Your task to perform on an android device: Open the stopwatch Image 0: 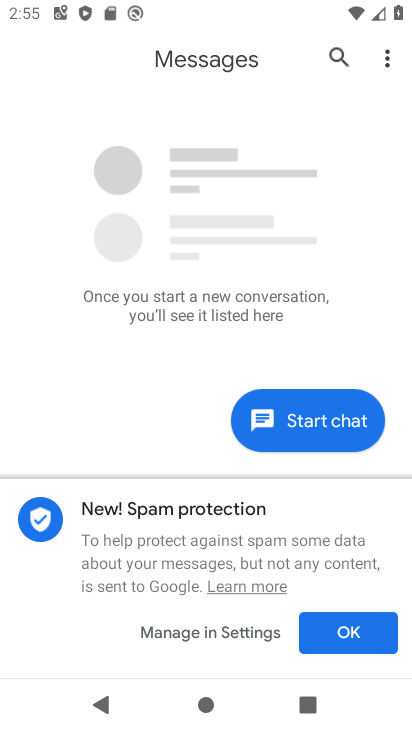
Step 0: press back button
Your task to perform on an android device: Open the stopwatch Image 1: 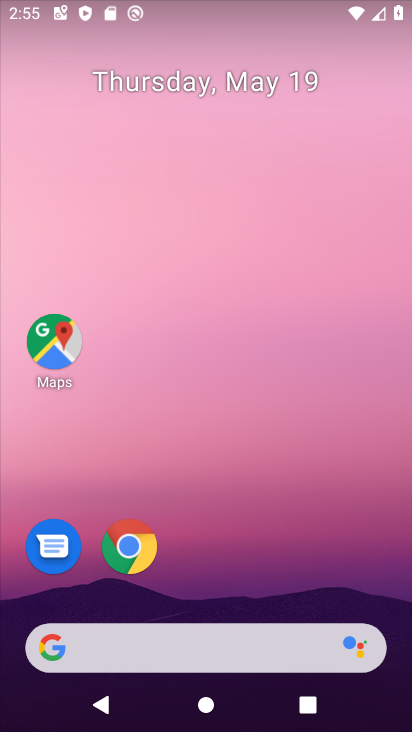
Step 1: drag from (228, 563) to (185, 127)
Your task to perform on an android device: Open the stopwatch Image 2: 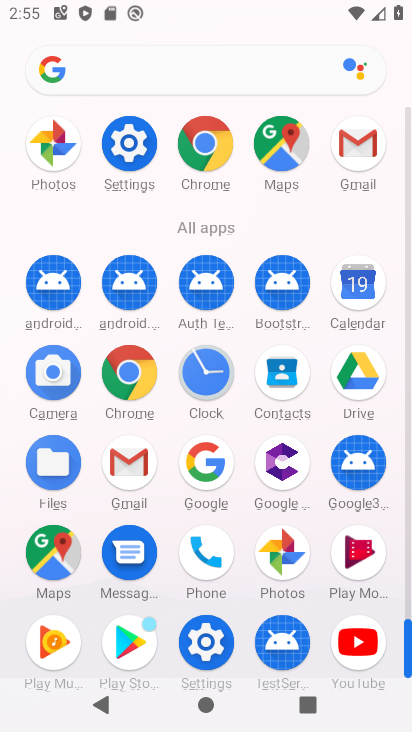
Step 2: click (205, 373)
Your task to perform on an android device: Open the stopwatch Image 3: 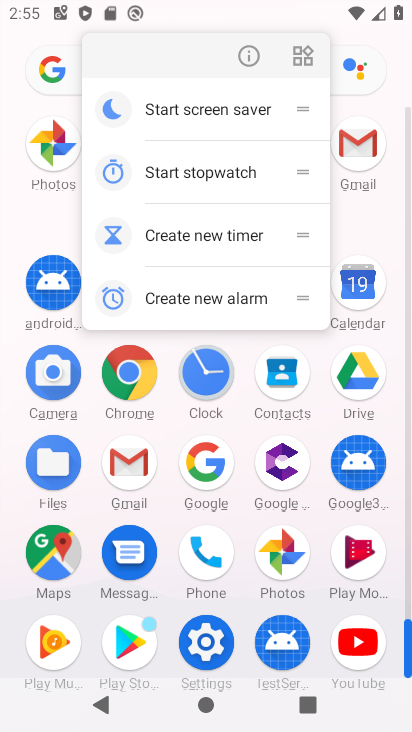
Step 3: click (205, 373)
Your task to perform on an android device: Open the stopwatch Image 4: 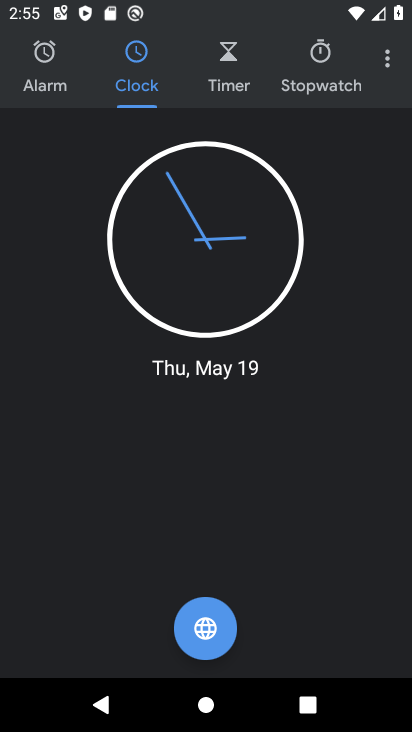
Step 4: click (318, 60)
Your task to perform on an android device: Open the stopwatch Image 5: 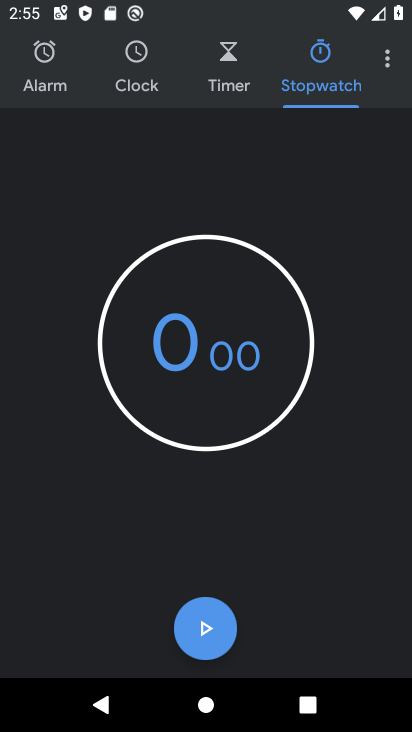
Step 5: task complete